Your task to perform on an android device: change the clock display to analog Image 0: 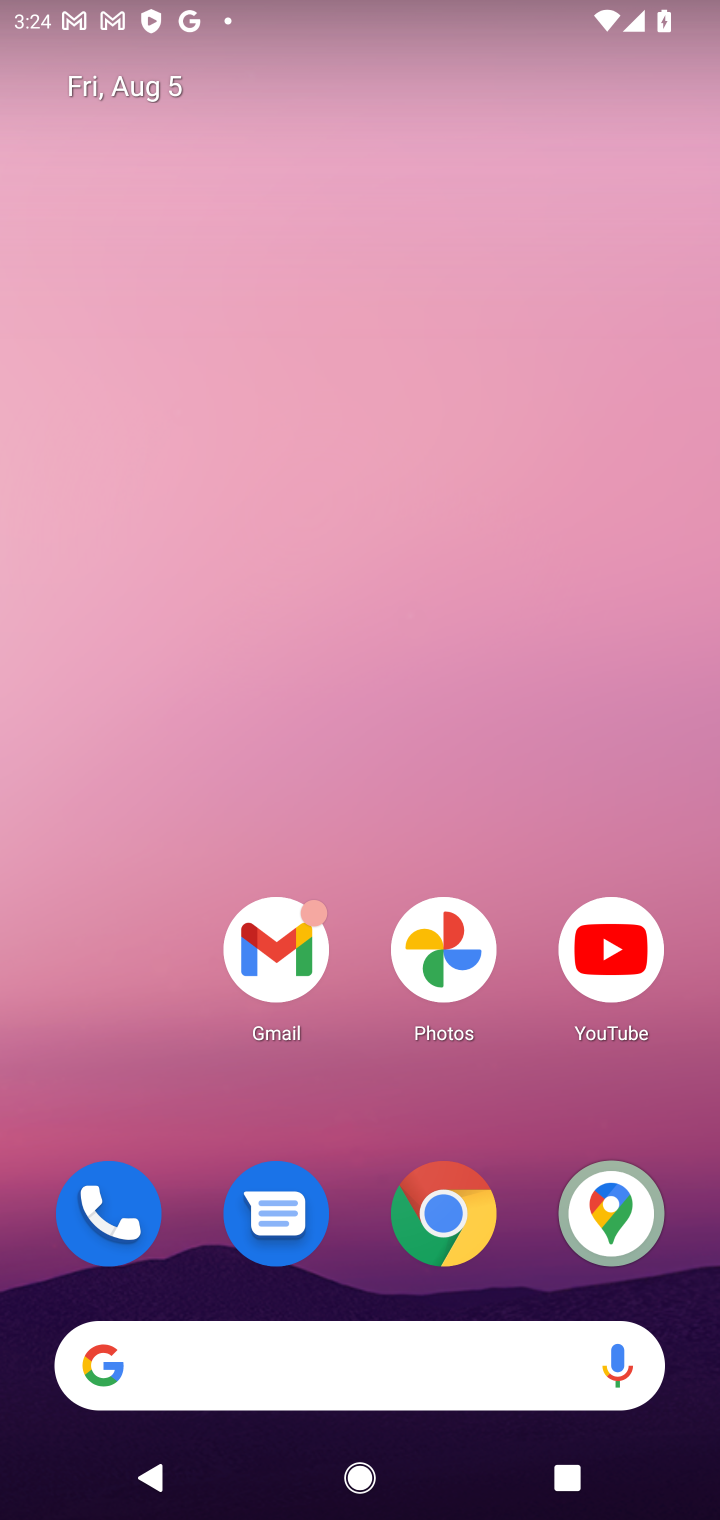
Step 0: drag from (335, 1293) to (549, 9)
Your task to perform on an android device: change the clock display to analog Image 1: 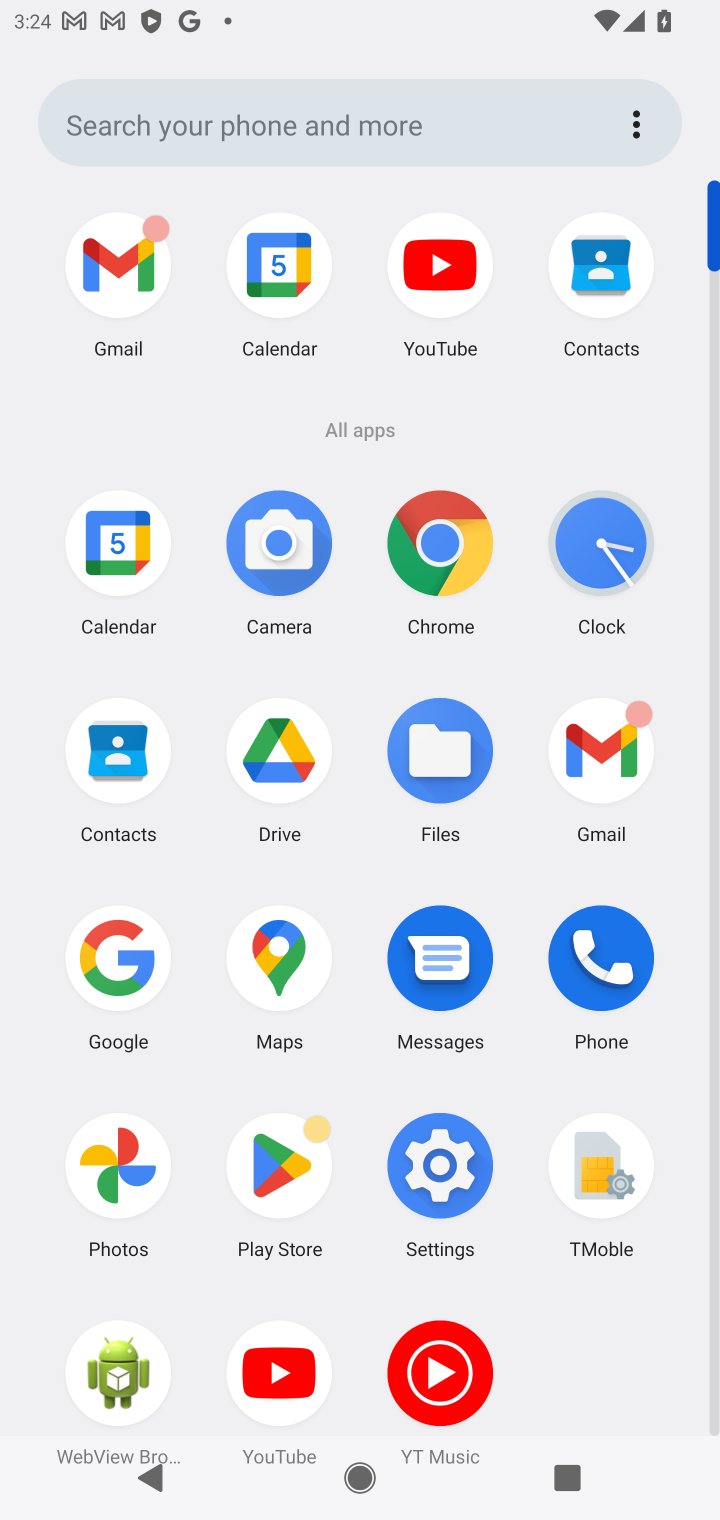
Step 1: click (580, 615)
Your task to perform on an android device: change the clock display to analog Image 2: 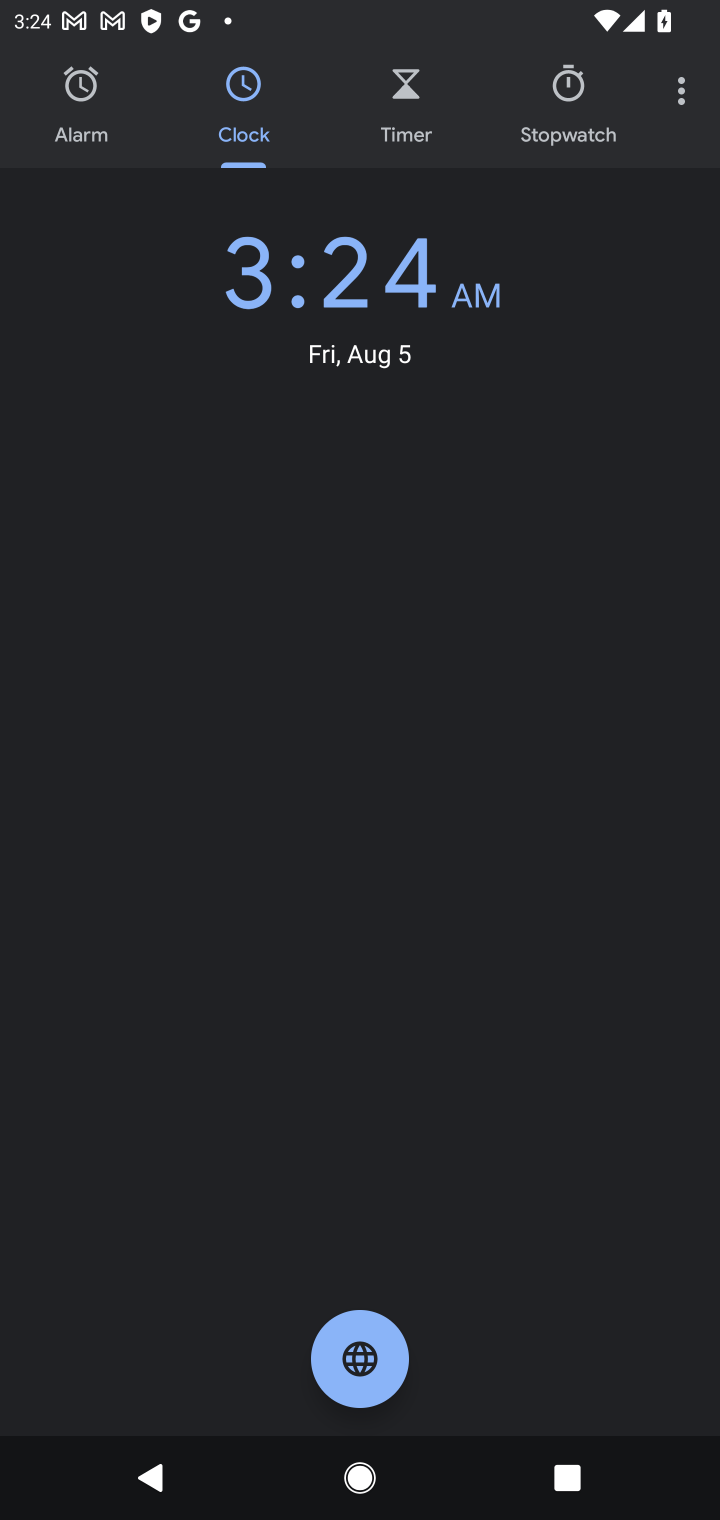
Step 2: task complete